Your task to perform on an android device: open a new tab in the chrome app Image 0: 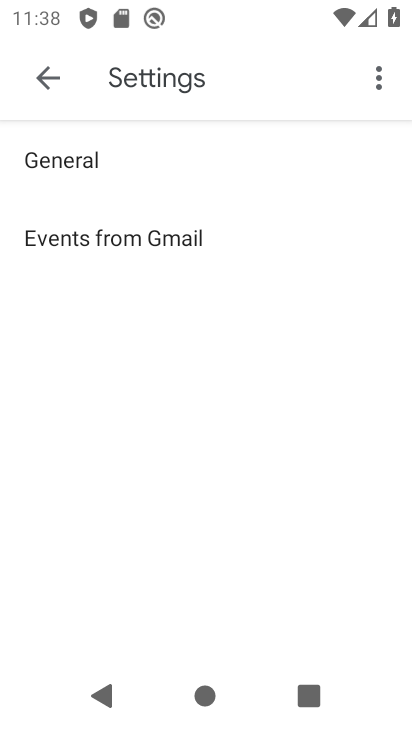
Step 0: press home button
Your task to perform on an android device: open a new tab in the chrome app Image 1: 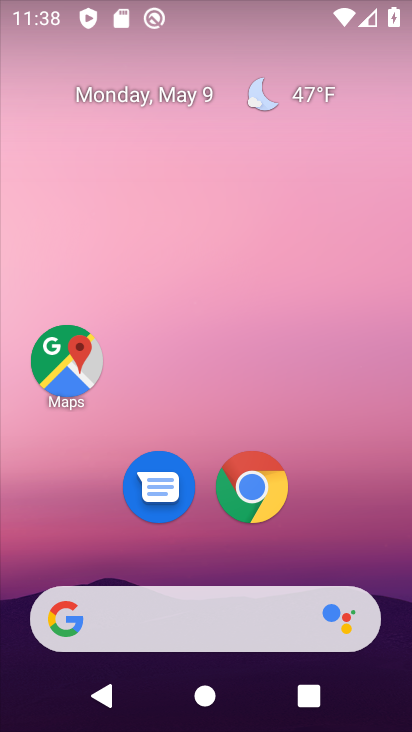
Step 1: click (248, 479)
Your task to perform on an android device: open a new tab in the chrome app Image 2: 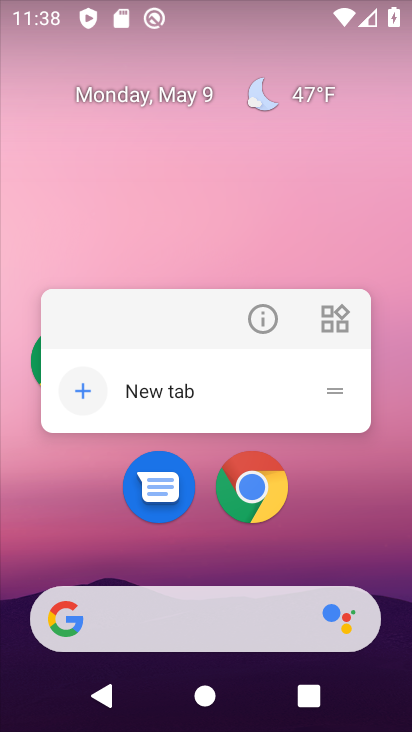
Step 2: click (251, 480)
Your task to perform on an android device: open a new tab in the chrome app Image 3: 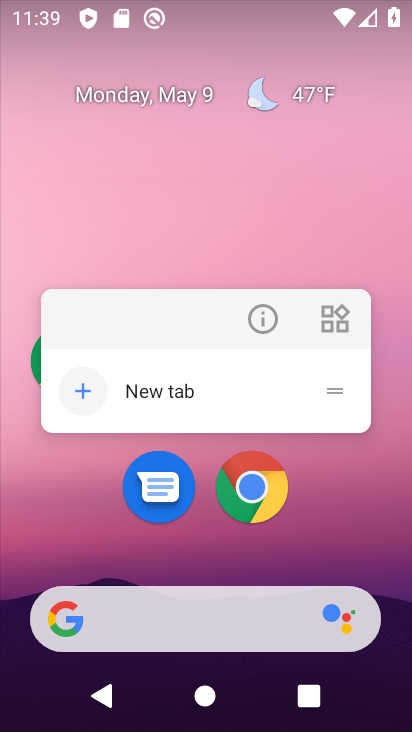
Step 3: click (310, 534)
Your task to perform on an android device: open a new tab in the chrome app Image 4: 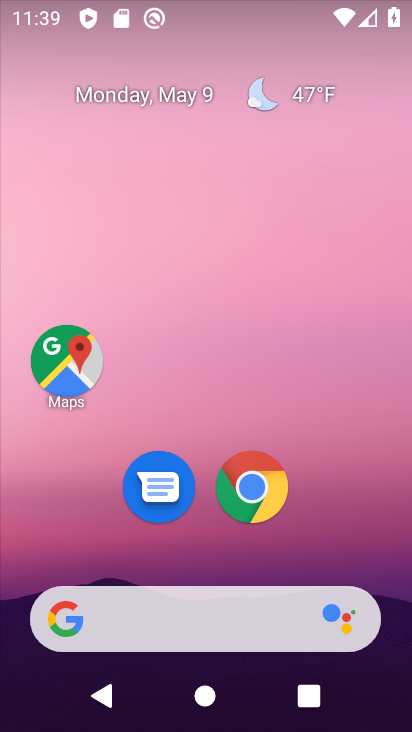
Step 4: drag from (232, 555) to (247, 41)
Your task to perform on an android device: open a new tab in the chrome app Image 5: 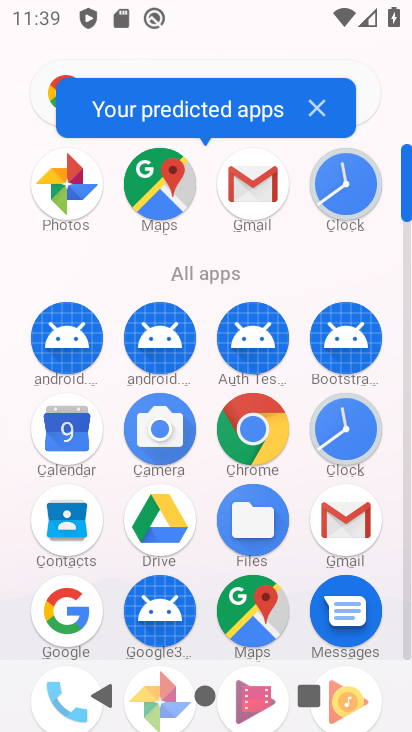
Step 5: click (249, 426)
Your task to perform on an android device: open a new tab in the chrome app Image 6: 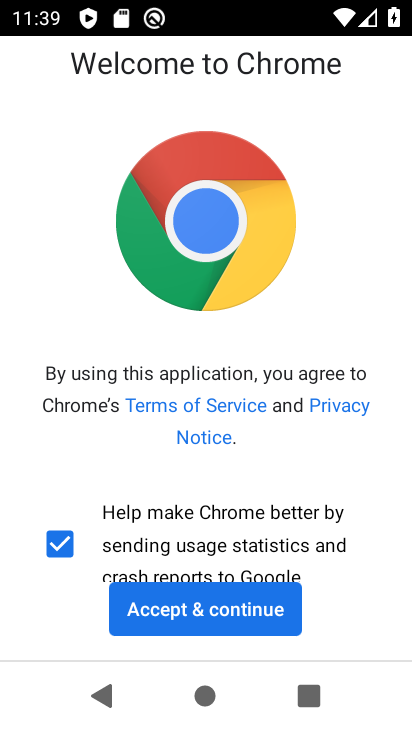
Step 6: click (208, 603)
Your task to perform on an android device: open a new tab in the chrome app Image 7: 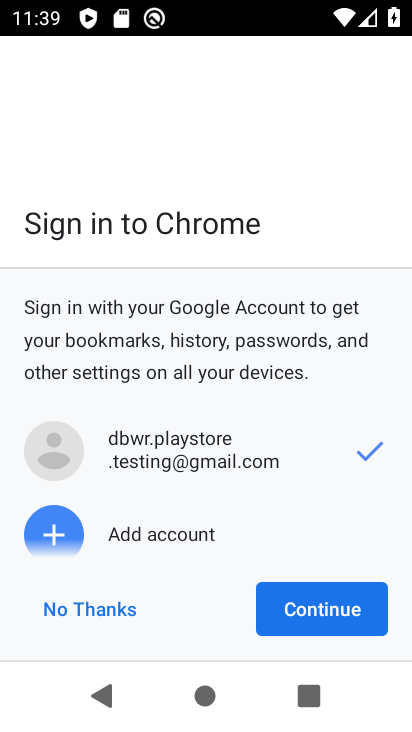
Step 7: click (308, 615)
Your task to perform on an android device: open a new tab in the chrome app Image 8: 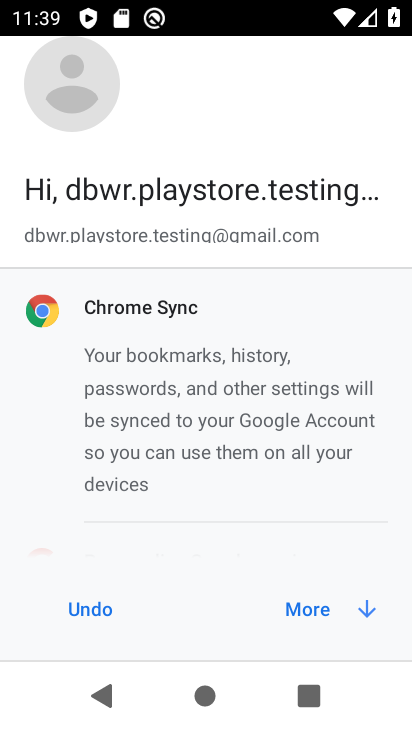
Step 8: click (309, 611)
Your task to perform on an android device: open a new tab in the chrome app Image 9: 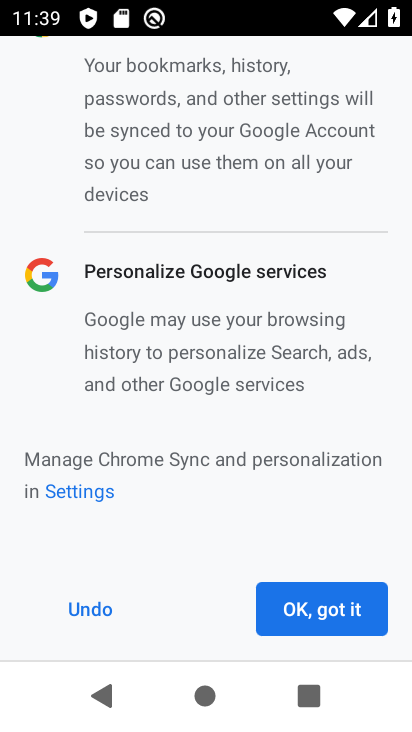
Step 9: click (309, 610)
Your task to perform on an android device: open a new tab in the chrome app Image 10: 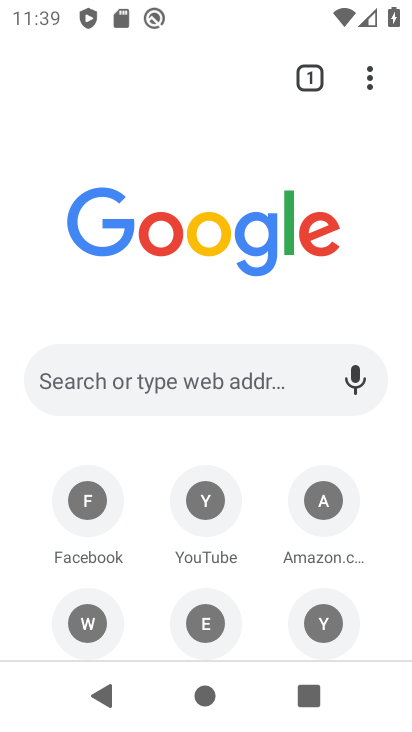
Step 10: click (361, 81)
Your task to perform on an android device: open a new tab in the chrome app Image 11: 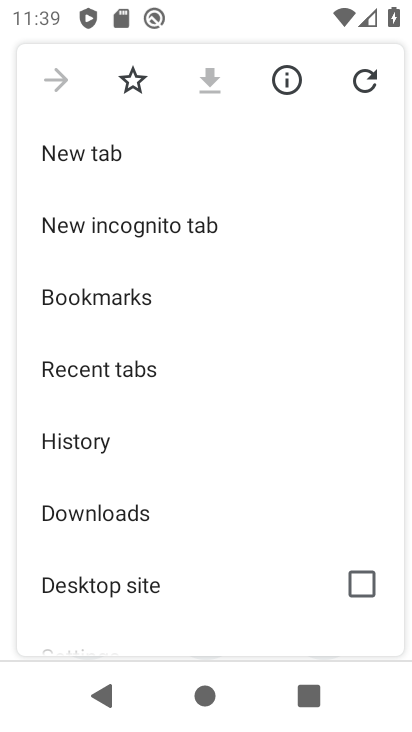
Step 11: click (115, 147)
Your task to perform on an android device: open a new tab in the chrome app Image 12: 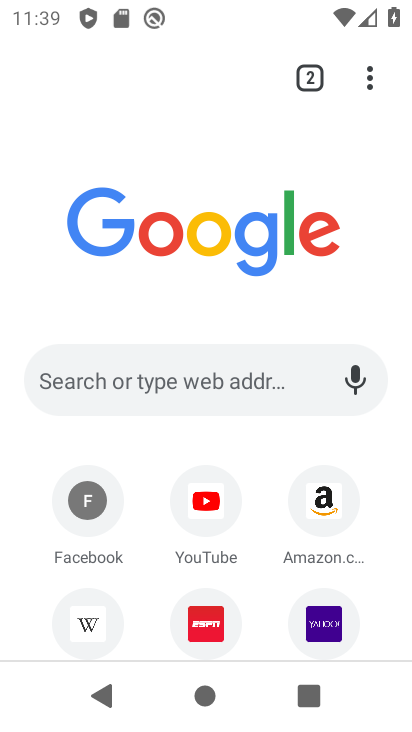
Step 12: task complete